Your task to perform on an android device: refresh tabs in the chrome app Image 0: 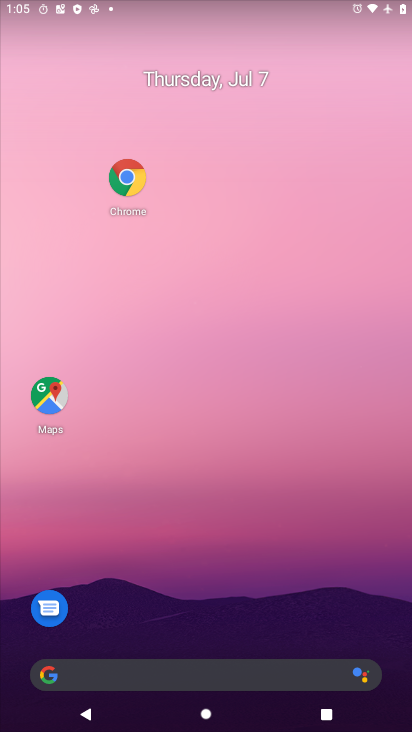
Step 0: click (122, 173)
Your task to perform on an android device: refresh tabs in the chrome app Image 1: 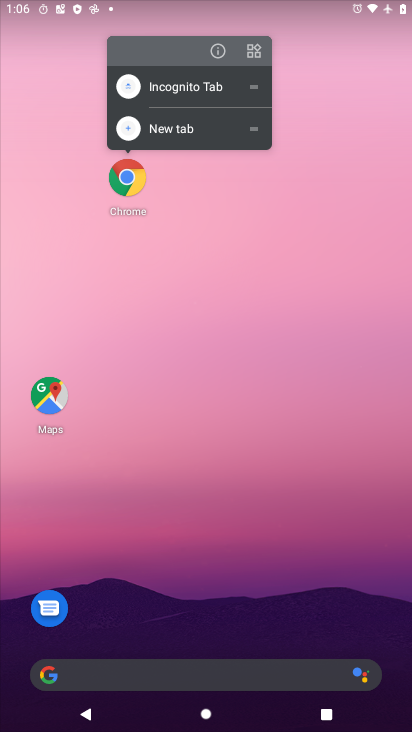
Step 1: click (122, 173)
Your task to perform on an android device: refresh tabs in the chrome app Image 2: 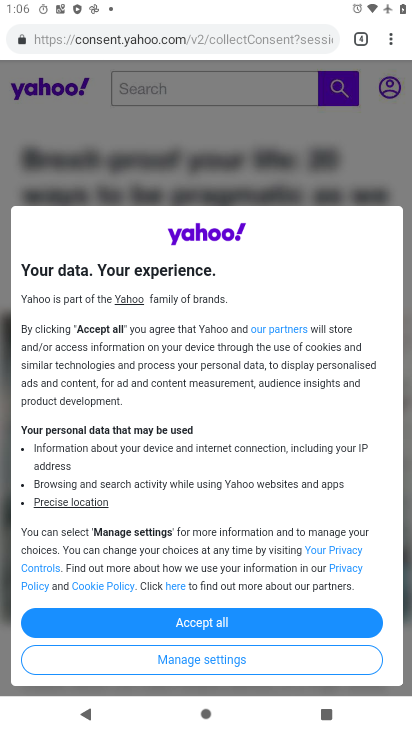
Step 2: click (391, 41)
Your task to perform on an android device: refresh tabs in the chrome app Image 3: 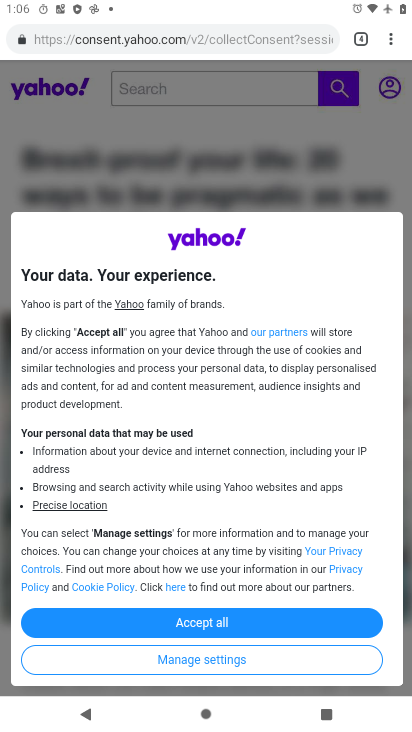
Step 3: click (391, 41)
Your task to perform on an android device: refresh tabs in the chrome app Image 4: 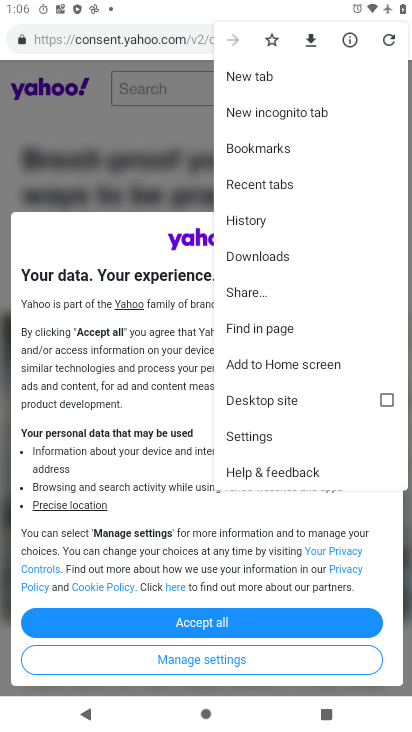
Step 4: click (390, 34)
Your task to perform on an android device: refresh tabs in the chrome app Image 5: 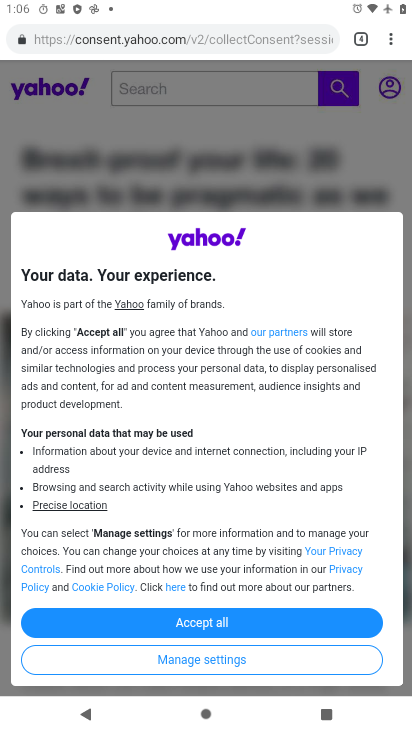
Step 5: task complete